Your task to perform on an android device: toggle sleep mode Image 0: 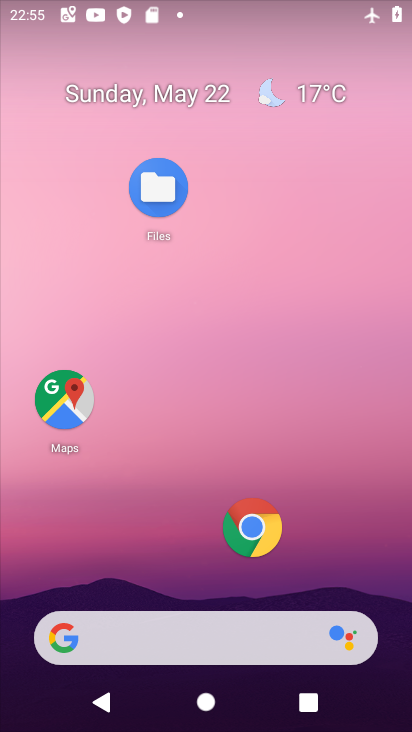
Step 0: drag from (351, 559) to (311, 3)
Your task to perform on an android device: toggle sleep mode Image 1: 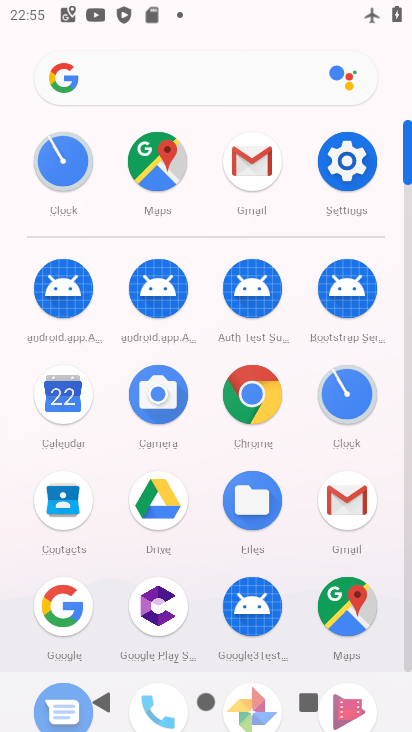
Step 1: click (341, 153)
Your task to perform on an android device: toggle sleep mode Image 2: 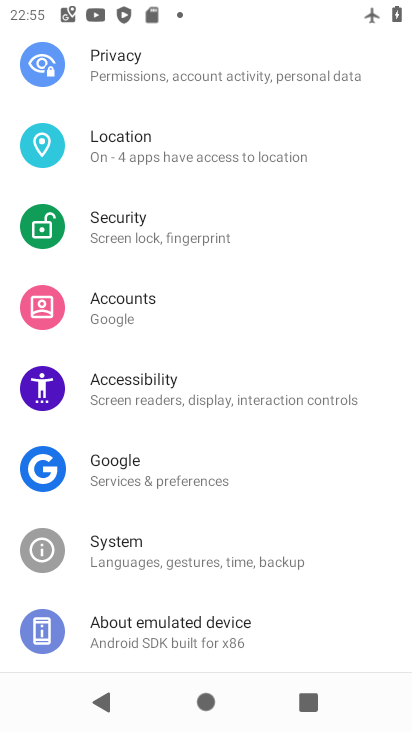
Step 2: drag from (223, 199) to (196, 497)
Your task to perform on an android device: toggle sleep mode Image 3: 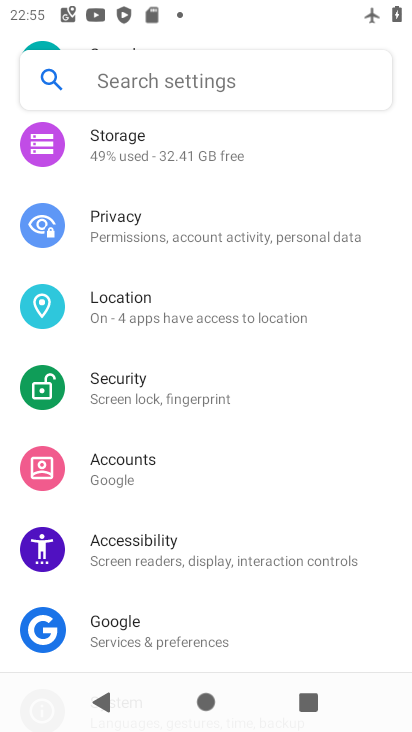
Step 3: click (137, 212)
Your task to perform on an android device: toggle sleep mode Image 4: 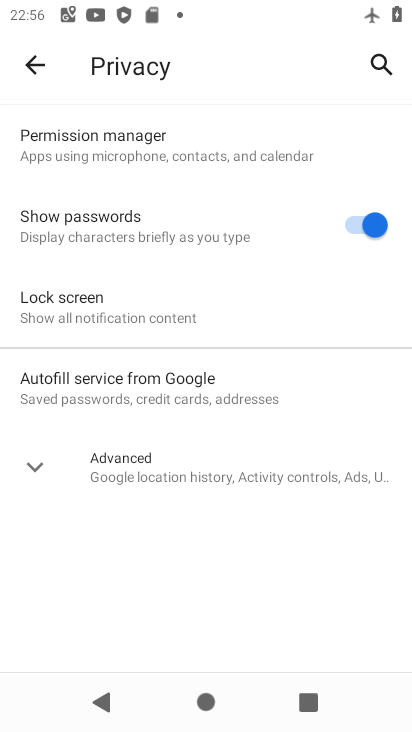
Step 4: task complete